Your task to perform on an android device: Open Google Chrome and click the shortcut for Amazon.com Image 0: 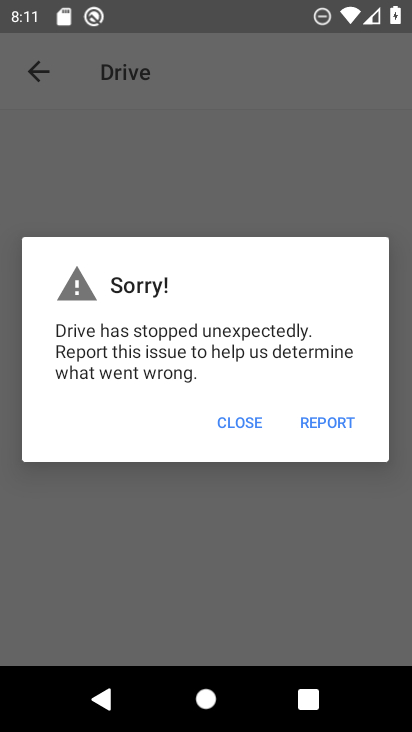
Step 0: press home button
Your task to perform on an android device: Open Google Chrome and click the shortcut for Amazon.com Image 1: 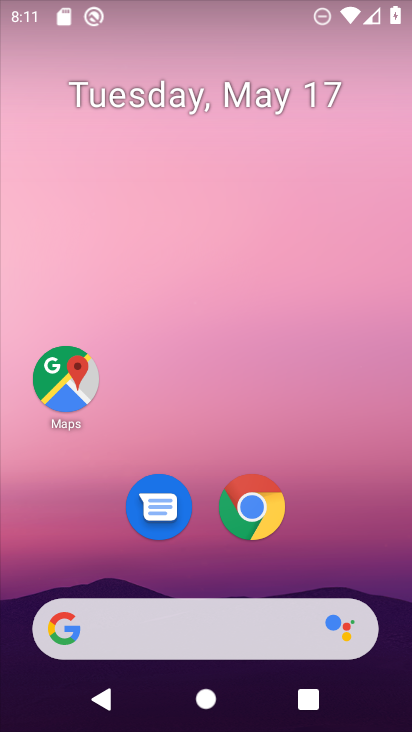
Step 1: click (253, 512)
Your task to perform on an android device: Open Google Chrome and click the shortcut for Amazon.com Image 2: 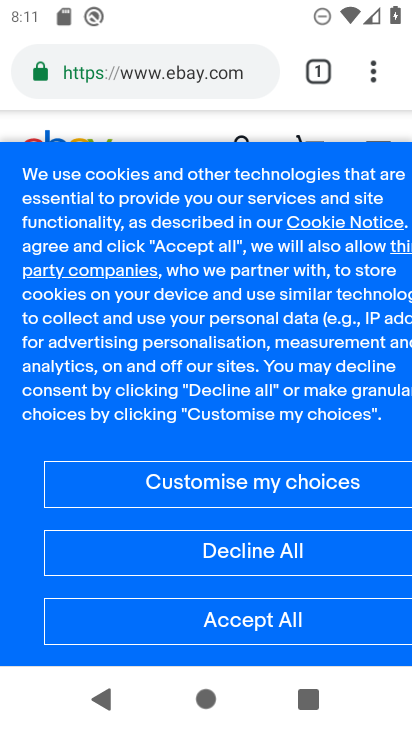
Step 2: click (368, 68)
Your task to perform on an android device: Open Google Chrome and click the shortcut for Amazon.com Image 3: 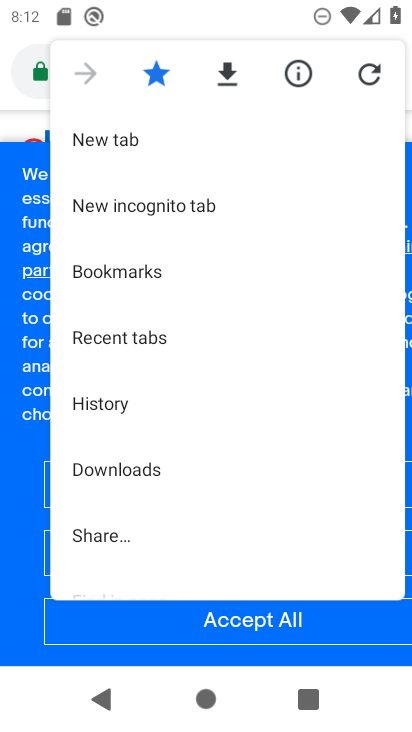
Step 3: click (107, 139)
Your task to perform on an android device: Open Google Chrome and click the shortcut for Amazon.com Image 4: 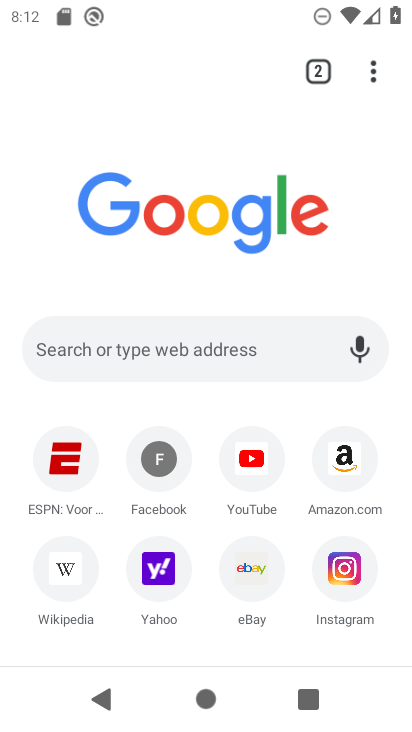
Step 4: click (351, 459)
Your task to perform on an android device: Open Google Chrome and click the shortcut for Amazon.com Image 5: 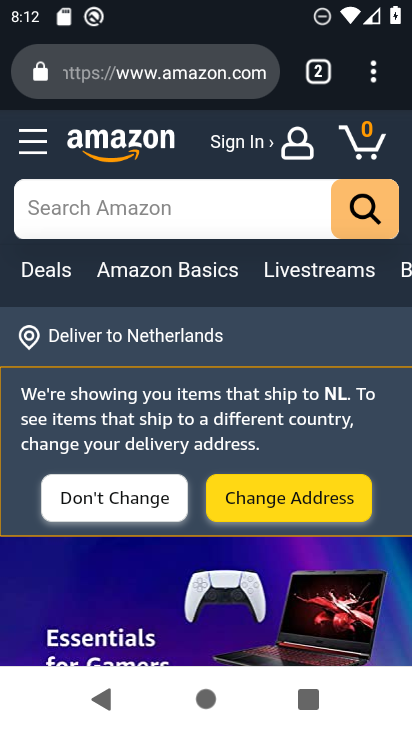
Step 5: task complete